Your task to perform on an android device: Empty the shopping cart on walmart.com. Add "logitech g933" to the cart on walmart.com, then select checkout. Image 0: 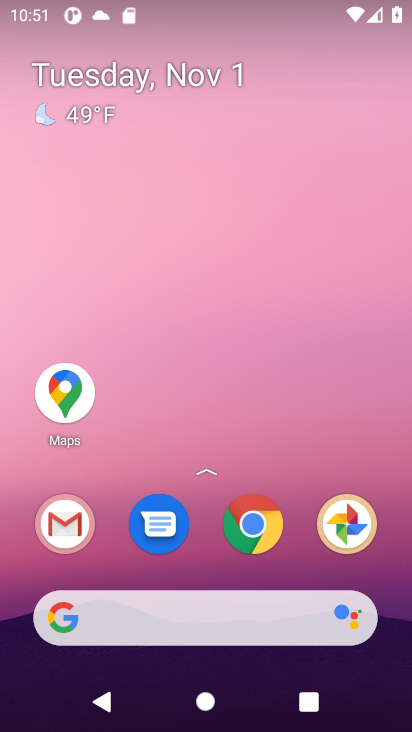
Step 0: click (91, 617)
Your task to perform on an android device: Empty the shopping cart on walmart.com. Add "logitech g933" to the cart on walmart.com, then select checkout. Image 1: 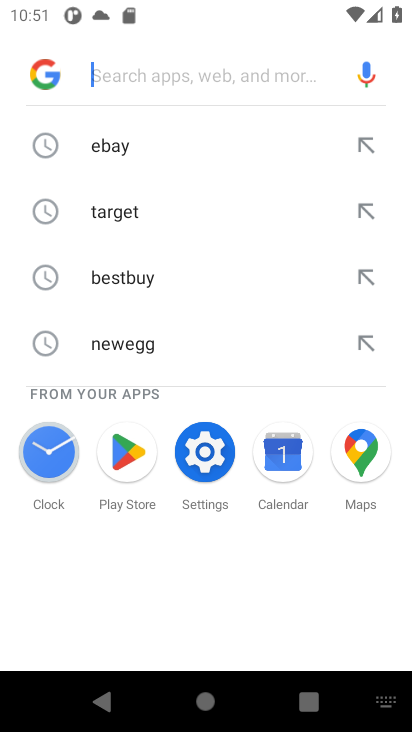
Step 1: type "walmart.com"
Your task to perform on an android device: Empty the shopping cart on walmart.com. Add "logitech g933" to the cart on walmart.com, then select checkout. Image 2: 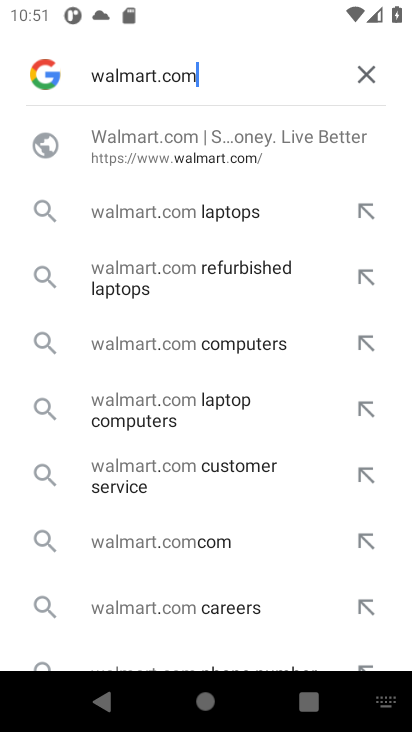
Step 2: press enter
Your task to perform on an android device: Empty the shopping cart on walmart.com. Add "logitech g933" to the cart on walmart.com, then select checkout. Image 3: 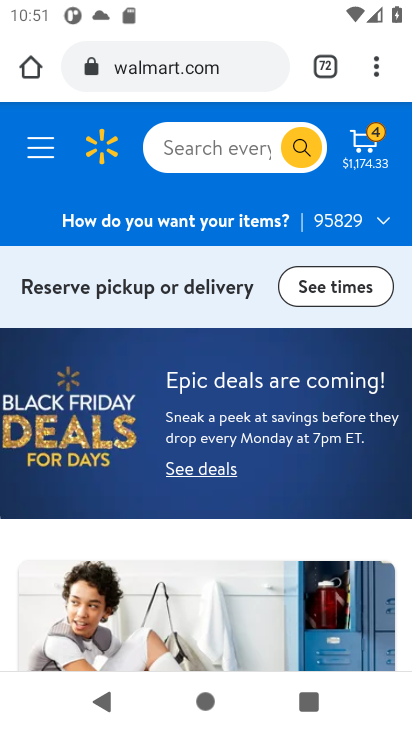
Step 3: click (177, 144)
Your task to perform on an android device: Empty the shopping cart on walmart.com. Add "logitech g933" to the cart on walmart.com, then select checkout. Image 4: 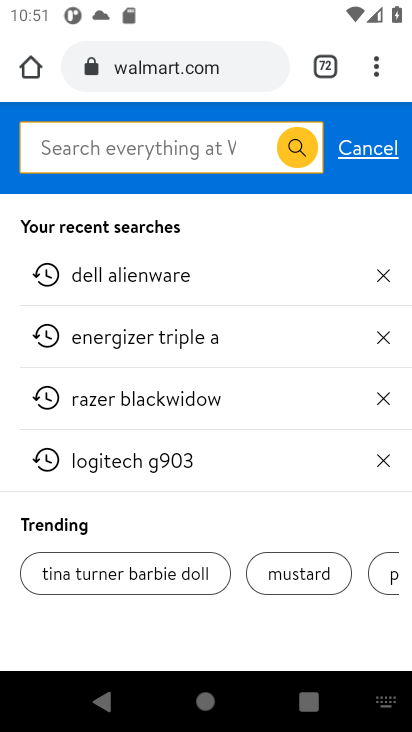
Step 4: click (364, 154)
Your task to perform on an android device: Empty the shopping cart on walmart.com. Add "logitech g933" to the cart on walmart.com, then select checkout. Image 5: 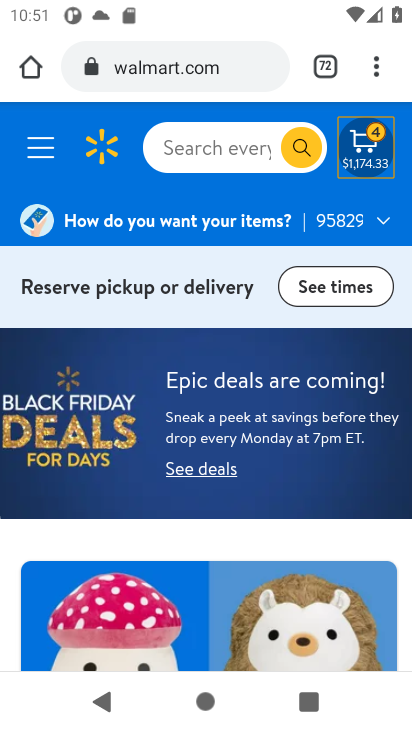
Step 5: click (179, 144)
Your task to perform on an android device: Empty the shopping cart on walmart.com. Add "logitech g933" to the cart on walmart.com, then select checkout. Image 6: 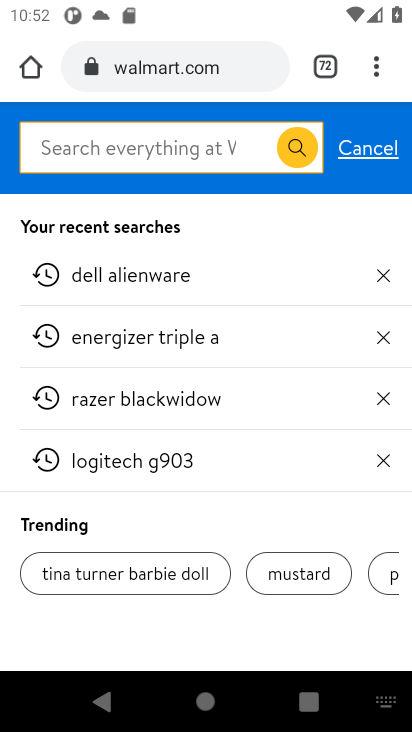
Step 6: click (364, 147)
Your task to perform on an android device: Empty the shopping cart on walmart.com. Add "logitech g933" to the cart on walmart.com, then select checkout. Image 7: 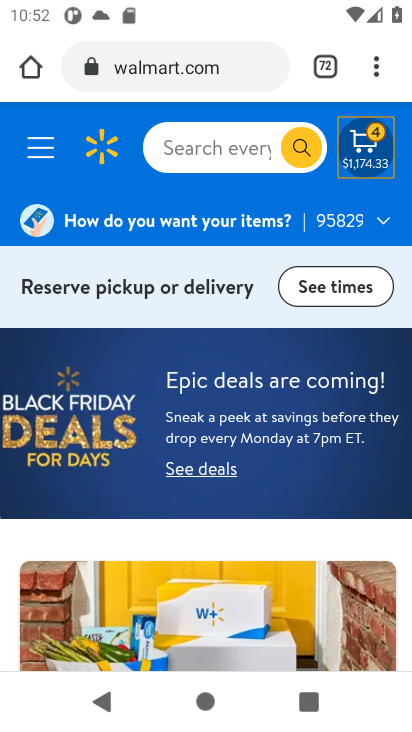
Step 7: click (363, 140)
Your task to perform on an android device: Empty the shopping cart on walmart.com. Add "logitech g933" to the cart on walmart.com, then select checkout. Image 8: 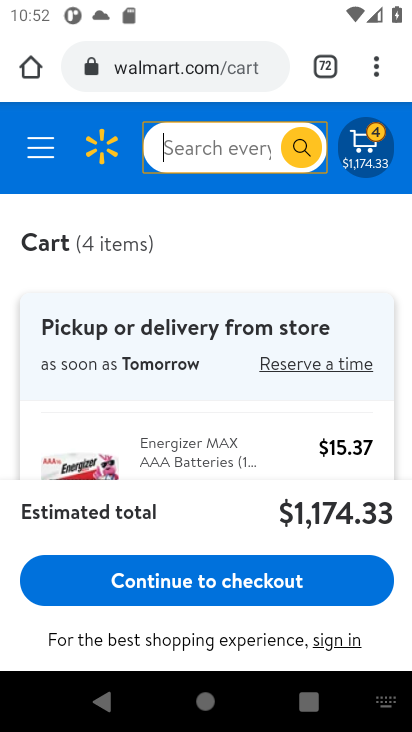
Step 8: drag from (172, 438) to (147, 264)
Your task to perform on an android device: Empty the shopping cart on walmart.com. Add "logitech g933" to the cart on walmart.com, then select checkout. Image 9: 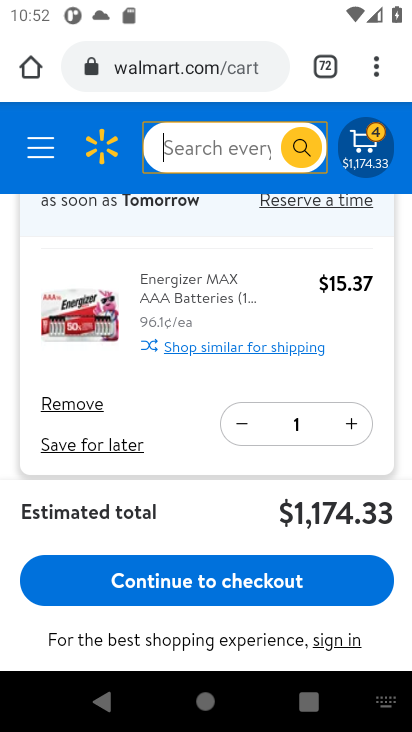
Step 9: click (72, 404)
Your task to perform on an android device: Empty the shopping cart on walmart.com. Add "logitech g933" to the cart on walmart.com, then select checkout. Image 10: 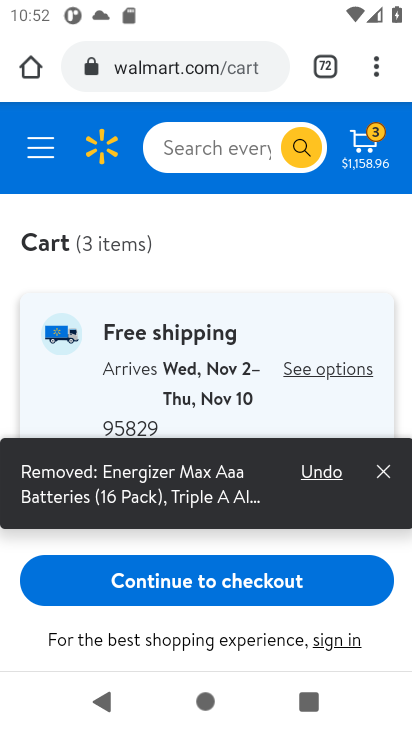
Step 10: drag from (93, 399) to (79, 241)
Your task to perform on an android device: Empty the shopping cart on walmart.com. Add "logitech g933" to the cart on walmart.com, then select checkout. Image 11: 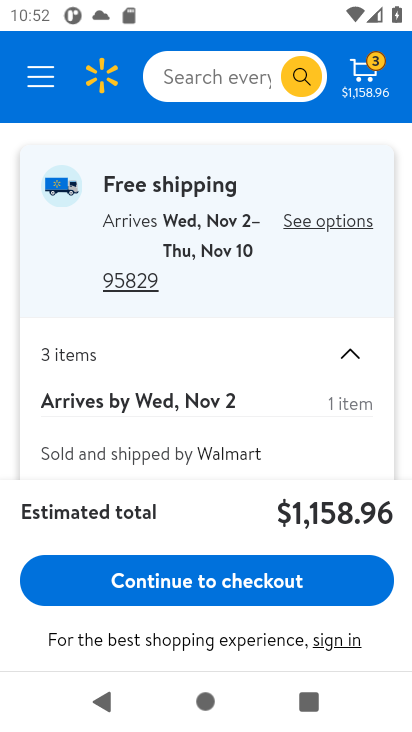
Step 11: drag from (99, 425) to (85, 269)
Your task to perform on an android device: Empty the shopping cart on walmart.com. Add "logitech g933" to the cart on walmart.com, then select checkout. Image 12: 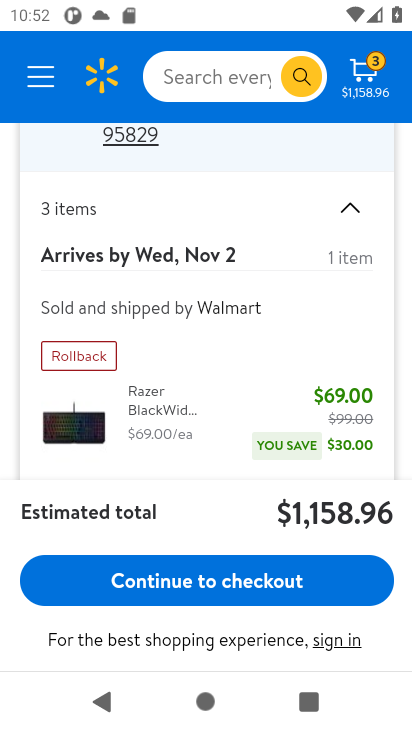
Step 12: drag from (177, 420) to (167, 215)
Your task to perform on an android device: Empty the shopping cart on walmart.com. Add "logitech g933" to the cart on walmart.com, then select checkout. Image 13: 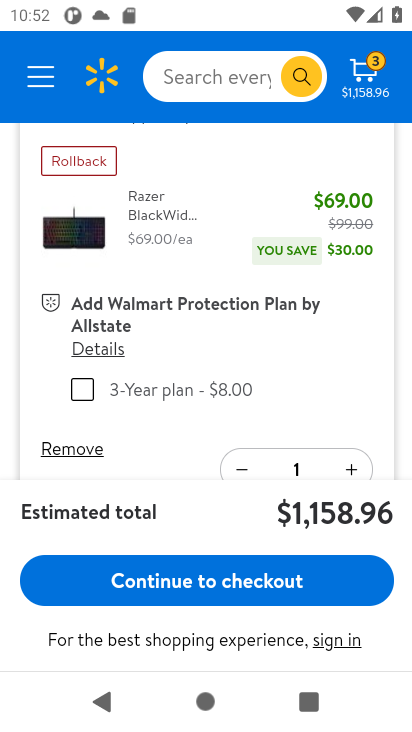
Step 13: drag from (155, 432) to (158, 241)
Your task to perform on an android device: Empty the shopping cart on walmart.com. Add "logitech g933" to the cart on walmart.com, then select checkout. Image 14: 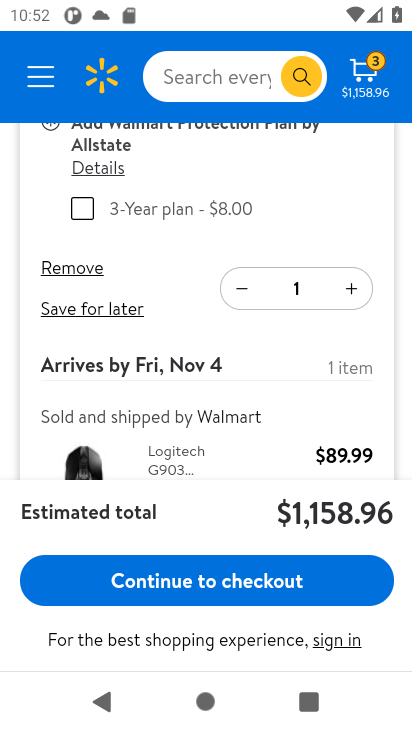
Step 14: click (78, 268)
Your task to perform on an android device: Empty the shopping cart on walmart.com. Add "logitech g933" to the cart on walmart.com, then select checkout. Image 15: 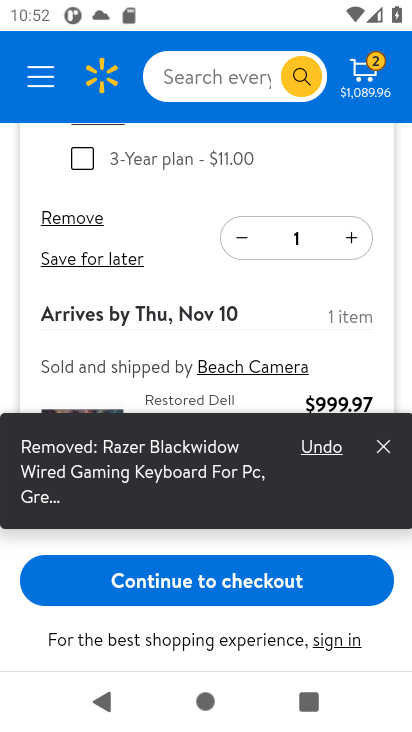
Step 15: click (79, 217)
Your task to perform on an android device: Empty the shopping cart on walmart.com. Add "logitech g933" to the cart on walmart.com, then select checkout. Image 16: 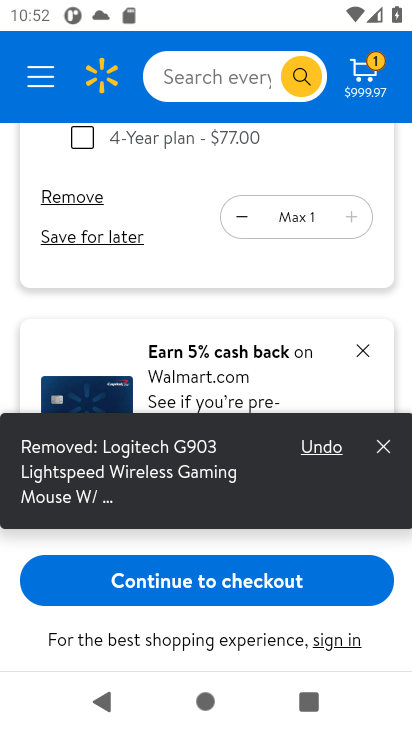
Step 16: click (72, 194)
Your task to perform on an android device: Empty the shopping cart on walmart.com. Add "logitech g933" to the cart on walmart.com, then select checkout. Image 17: 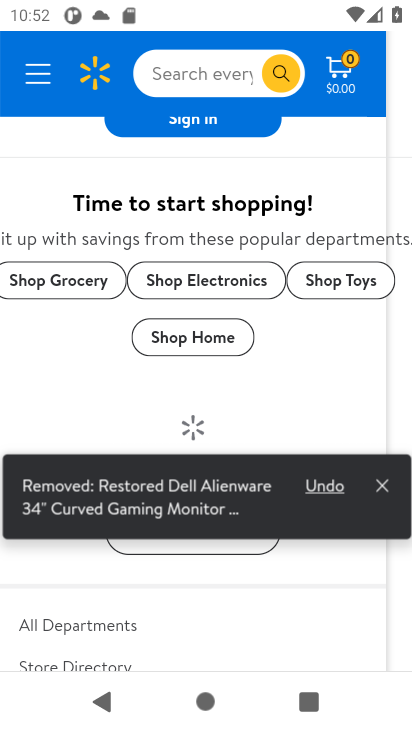
Step 17: drag from (171, 411) to (169, 199)
Your task to perform on an android device: Empty the shopping cart on walmart.com. Add "logitech g933" to the cart on walmart.com, then select checkout. Image 18: 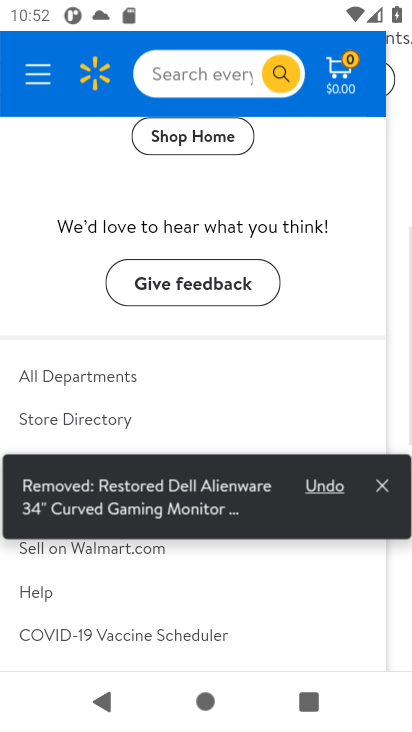
Step 18: drag from (156, 370) to (163, 221)
Your task to perform on an android device: Empty the shopping cart on walmart.com. Add "logitech g933" to the cart on walmart.com, then select checkout. Image 19: 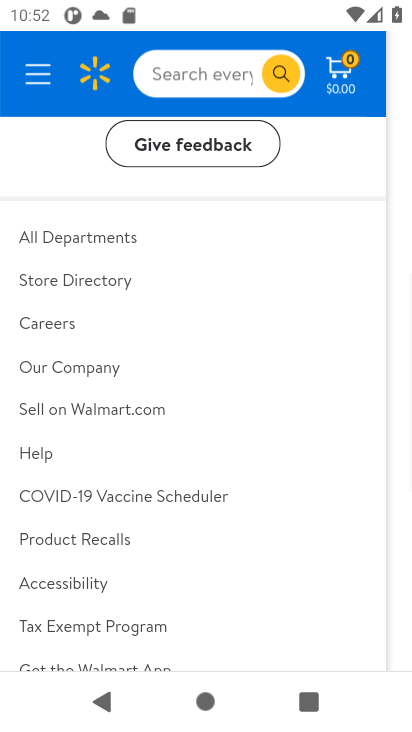
Step 19: drag from (187, 488) to (207, 213)
Your task to perform on an android device: Empty the shopping cart on walmart.com. Add "logitech g933" to the cart on walmart.com, then select checkout. Image 20: 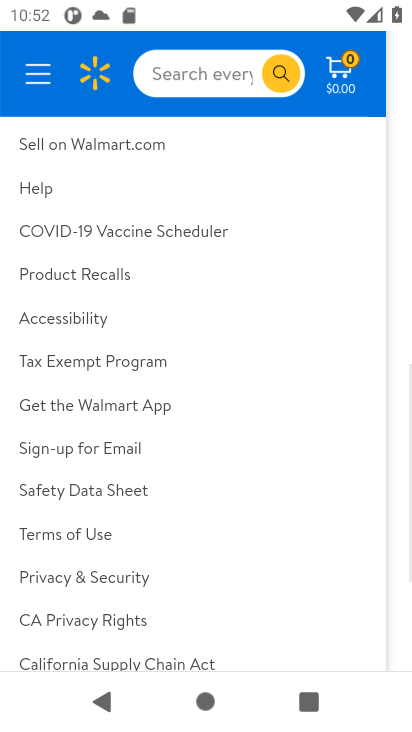
Step 20: drag from (272, 534) to (269, 208)
Your task to perform on an android device: Empty the shopping cart on walmart.com. Add "logitech g933" to the cart on walmart.com, then select checkout. Image 21: 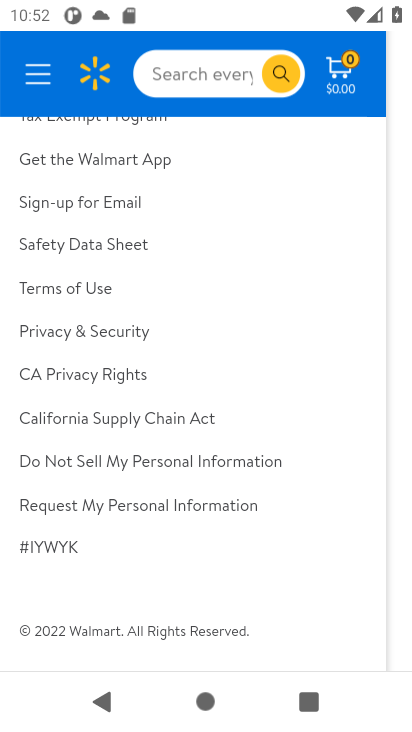
Step 21: click (186, 69)
Your task to perform on an android device: Empty the shopping cart on walmart.com. Add "logitech g933" to the cart on walmart.com, then select checkout. Image 22: 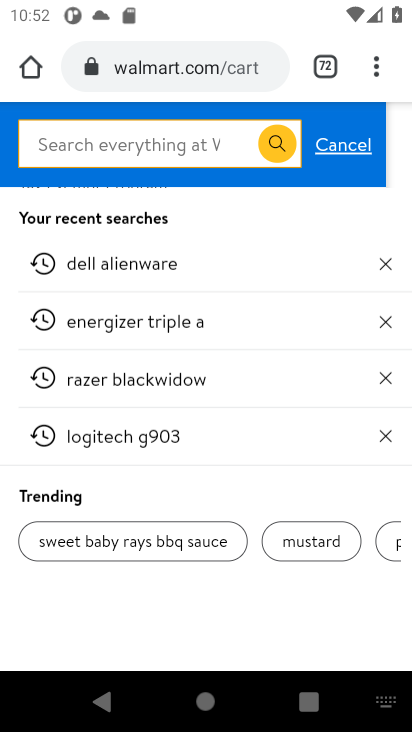
Step 22: type "logitech g933"
Your task to perform on an android device: Empty the shopping cart on walmart.com. Add "logitech g933" to the cart on walmart.com, then select checkout. Image 23: 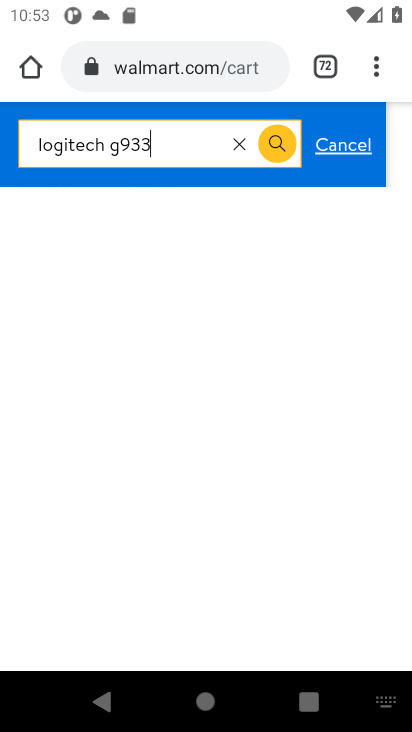
Step 23: press enter
Your task to perform on an android device: Empty the shopping cart on walmart.com. Add "logitech g933" to the cart on walmart.com, then select checkout. Image 24: 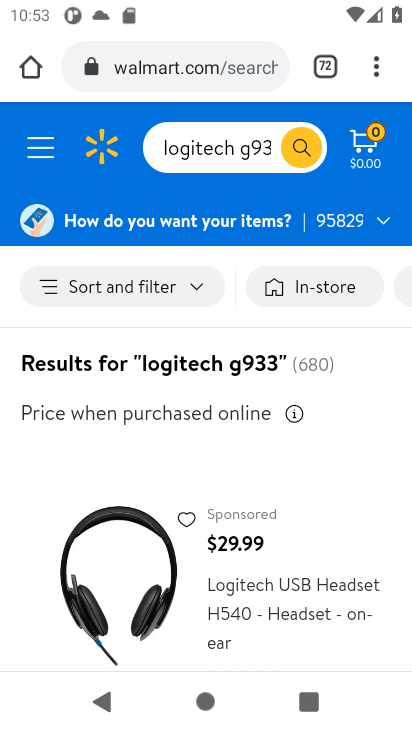
Step 24: drag from (269, 588) to (250, 376)
Your task to perform on an android device: Empty the shopping cart on walmart.com. Add "logitech g933" to the cart on walmart.com, then select checkout. Image 25: 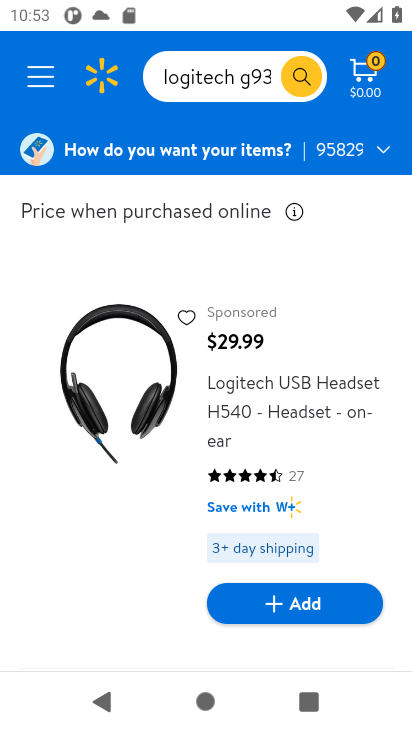
Step 25: drag from (170, 583) to (187, 350)
Your task to perform on an android device: Empty the shopping cart on walmart.com. Add "logitech g933" to the cart on walmart.com, then select checkout. Image 26: 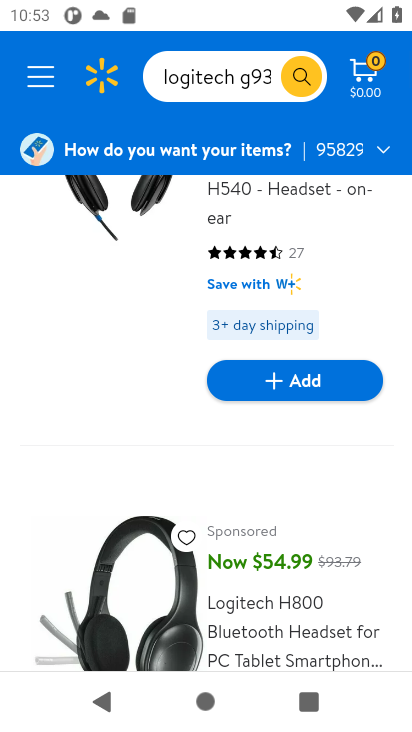
Step 26: drag from (203, 605) to (201, 351)
Your task to perform on an android device: Empty the shopping cart on walmart.com. Add "logitech g933" to the cart on walmart.com, then select checkout. Image 27: 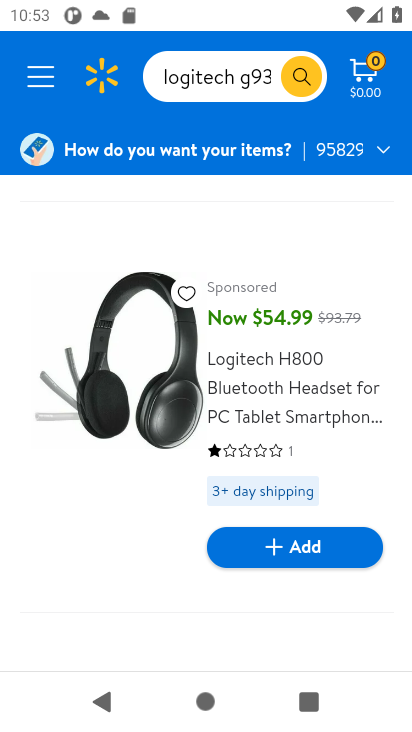
Step 27: drag from (191, 585) to (197, 362)
Your task to perform on an android device: Empty the shopping cart on walmart.com. Add "logitech g933" to the cart on walmart.com, then select checkout. Image 28: 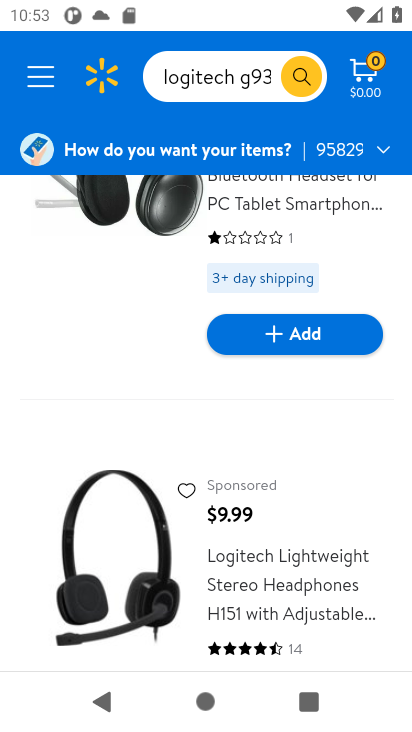
Step 28: drag from (248, 589) to (262, 288)
Your task to perform on an android device: Empty the shopping cart on walmart.com. Add "logitech g933" to the cart on walmart.com, then select checkout. Image 29: 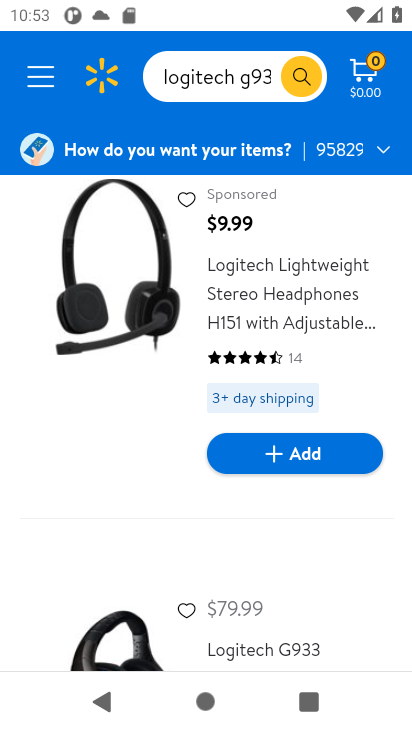
Step 29: drag from (241, 616) to (242, 323)
Your task to perform on an android device: Empty the shopping cart on walmart.com. Add "logitech g933" to the cart on walmart.com, then select checkout. Image 30: 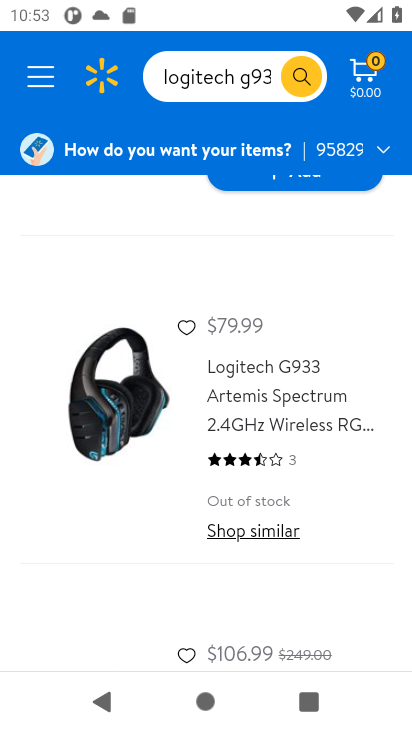
Step 30: click (287, 390)
Your task to perform on an android device: Empty the shopping cart on walmart.com. Add "logitech g933" to the cart on walmart.com, then select checkout. Image 31: 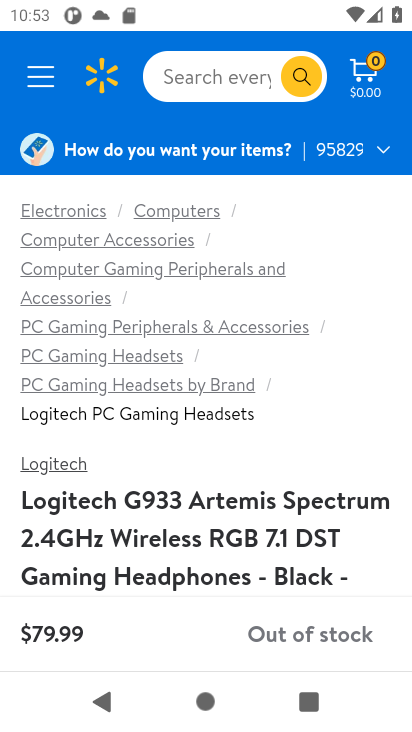
Step 31: task complete